Your task to perform on an android device: open app "DoorDash - Dasher" (install if not already installed), go to login, and select forgot password Image 0: 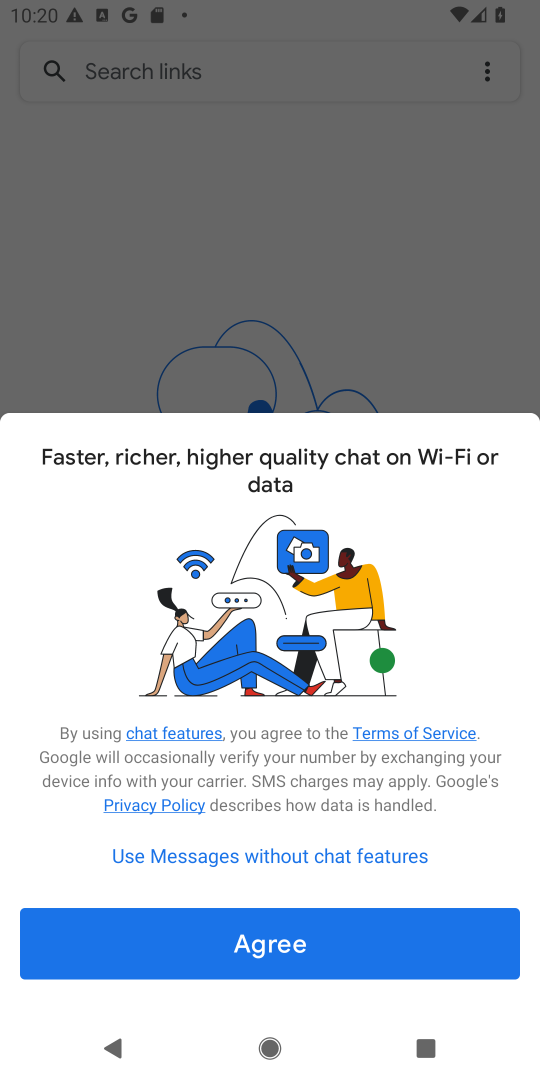
Step 0: press home button
Your task to perform on an android device: open app "DoorDash - Dasher" (install if not already installed), go to login, and select forgot password Image 1: 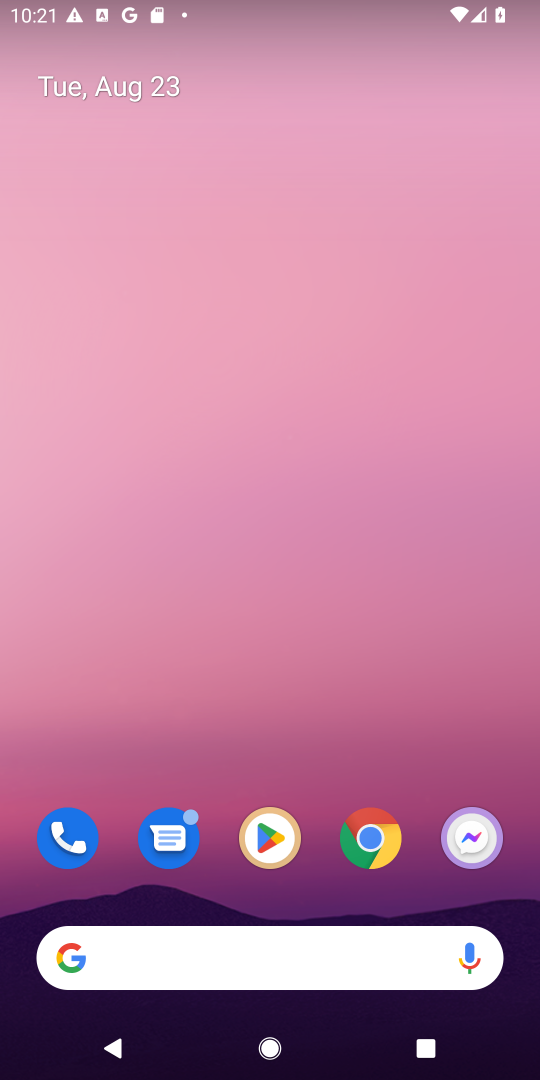
Step 1: click (261, 809)
Your task to perform on an android device: open app "DoorDash - Dasher" (install if not already installed), go to login, and select forgot password Image 2: 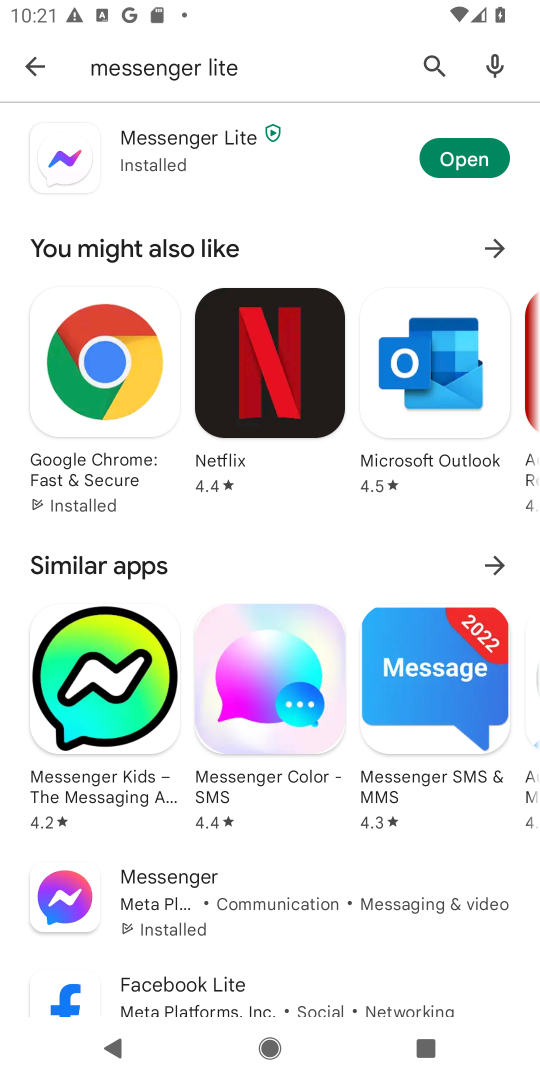
Step 2: click (428, 63)
Your task to perform on an android device: open app "DoorDash - Dasher" (install if not already installed), go to login, and select forgot password Image 3: 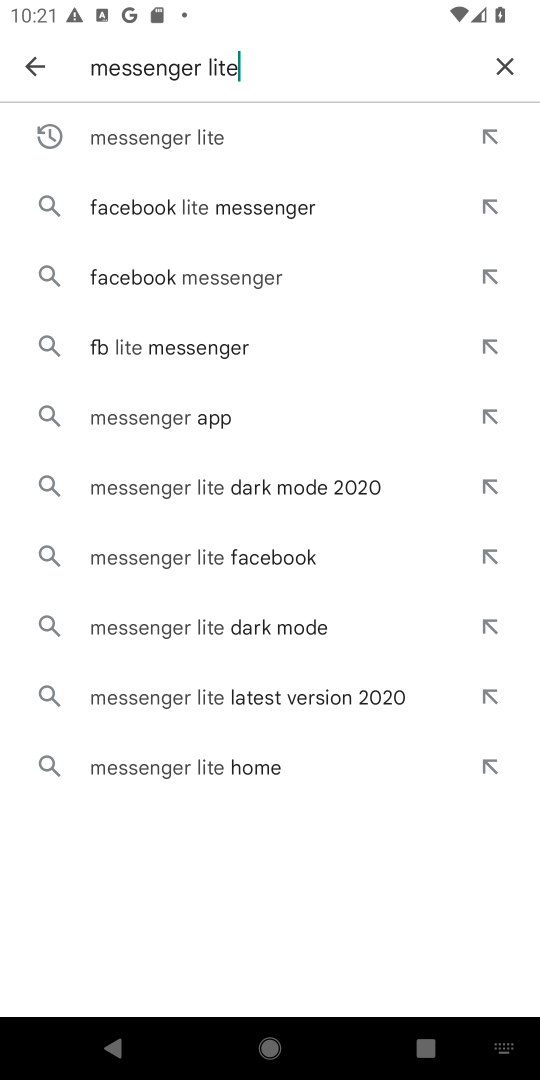
Step 3: click (507, 70)
Your task to perform on an android device: open app "DoorDash - Dasher" (install if not already installed), go to login, and select forgot password Image 4: 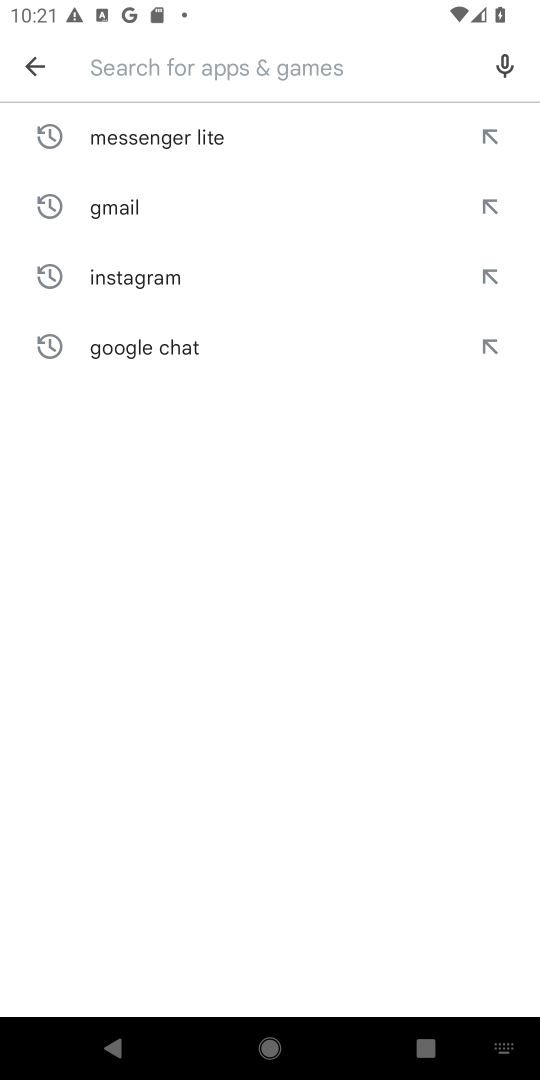
Step 4: type "DoorDash - Dasher"
Your task to perform on an android device: open app "DoorDash - Dasher" (install if not already installed), go to login, and select forgot password Image 5: 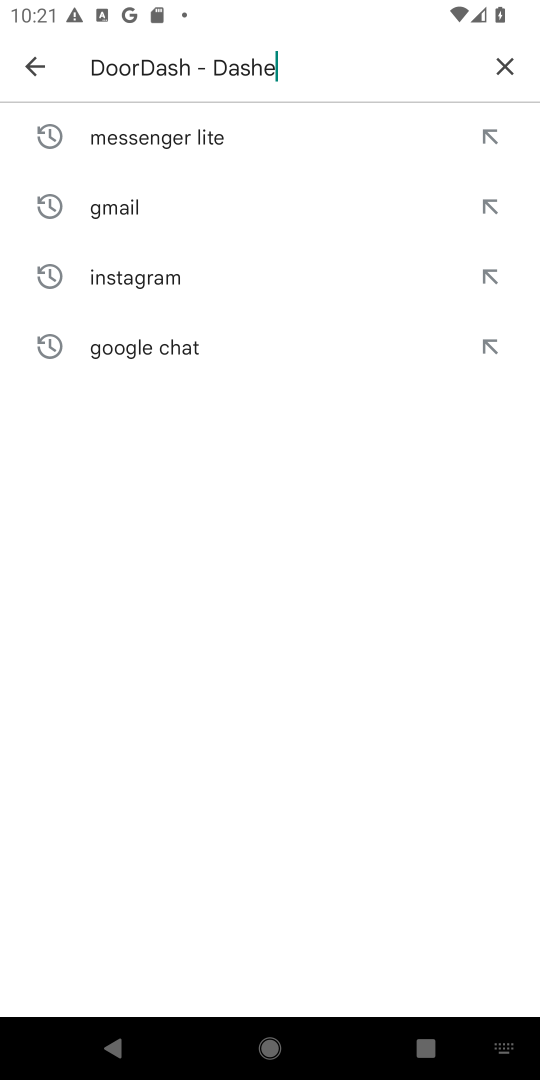
Step 5: type ""
Your task to perform on an android device: open app "DoorDash - Dasher" (install if not already installed), go to login, and select forgot password Image 6: 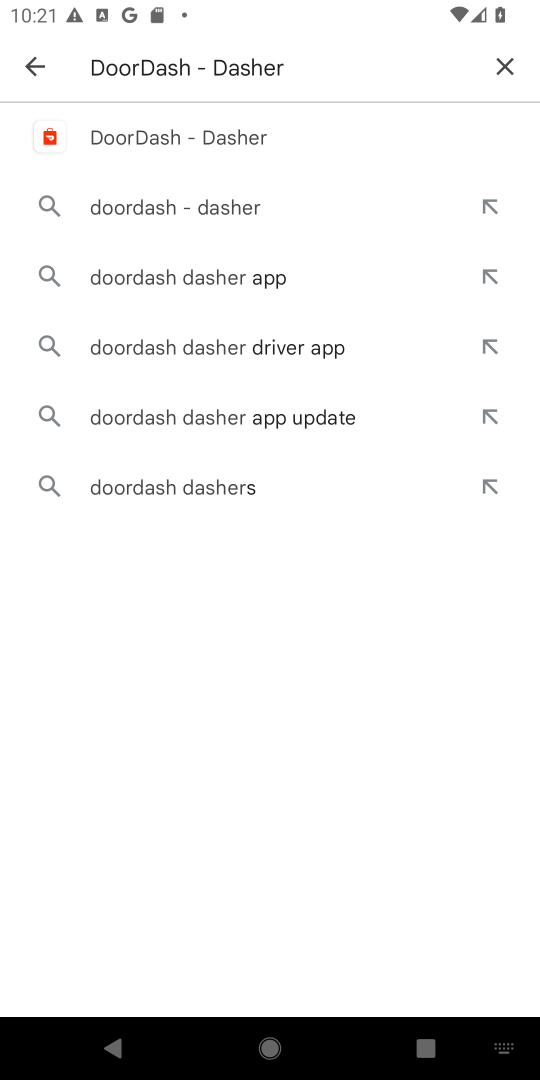
Step 6: click (189, 129)
Your task to perform on an android device: open app "DoorDash - Dasher" (install if not already installed), go to login, and select forgot password Image 7: 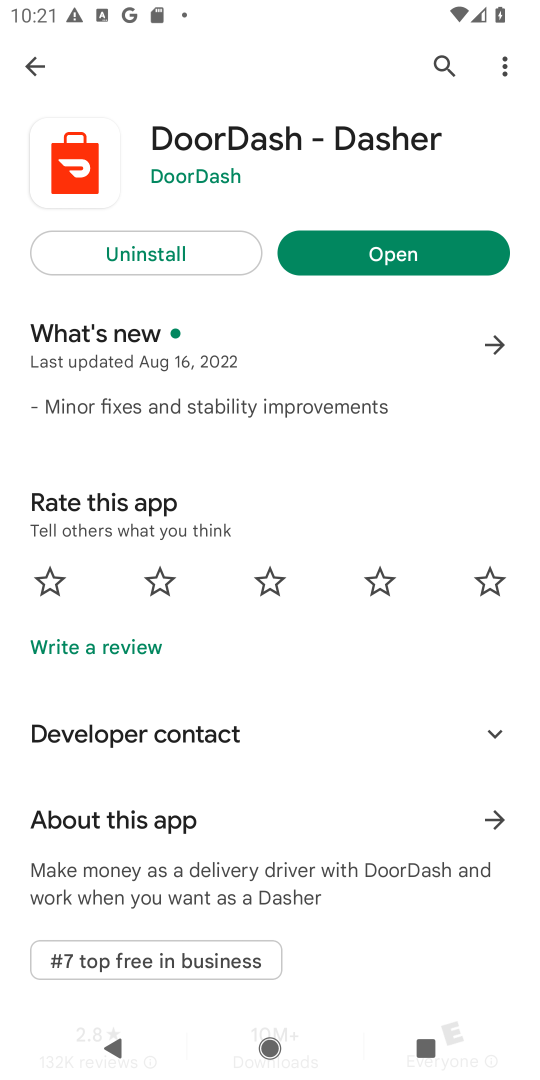
Step 7: click (430, 239)
Your task to perform on an android device: open app "DoorDash - Dasher" (install if not already installed), go to login, and select forgot password Image 8: 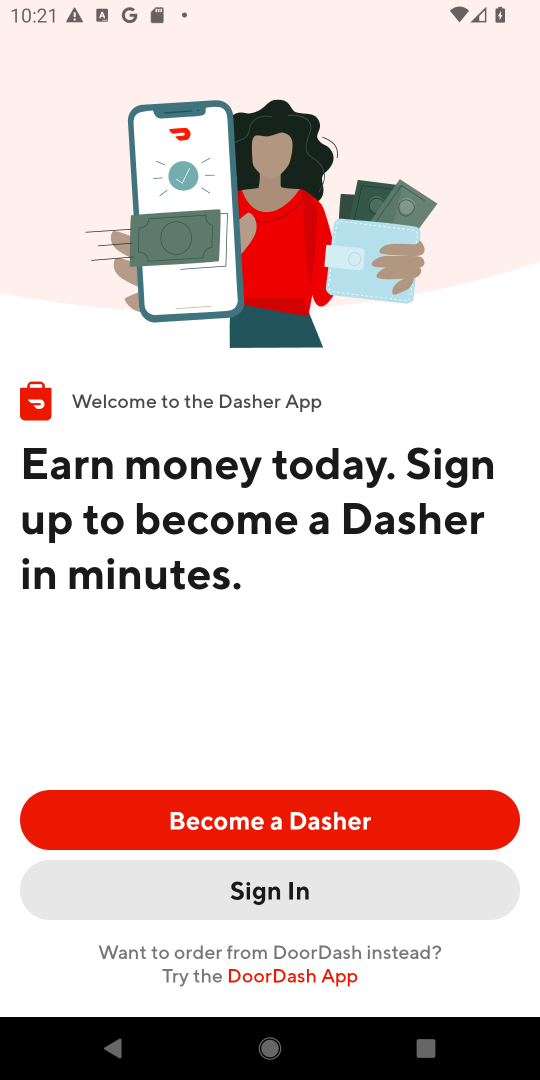
Step 8: task complete